Your task to perform on an android device: change timer sound Image 0: 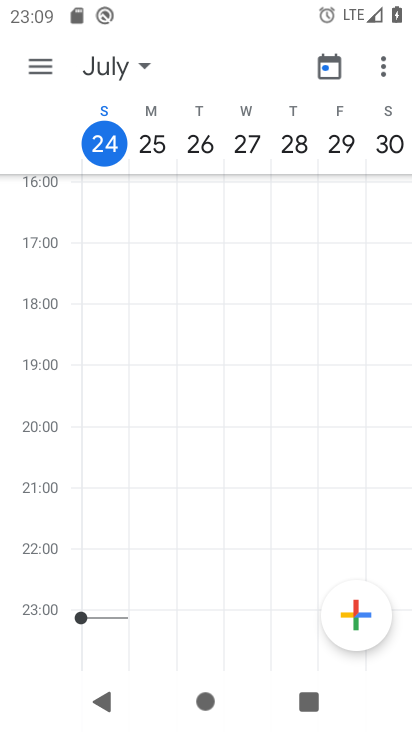
Step 0: press home button
Your task to perform on an android device: change timer sound Image 1: 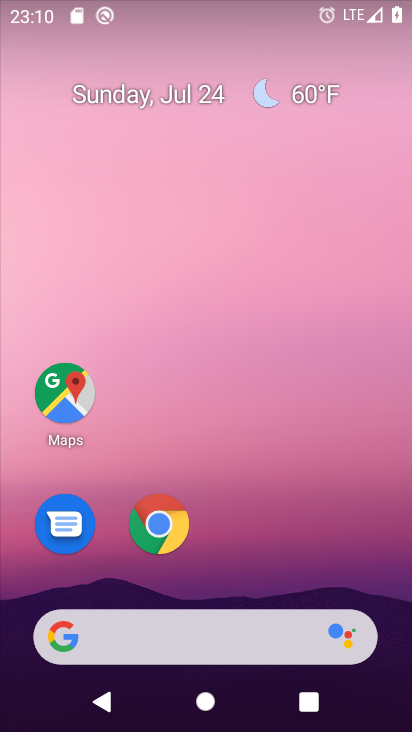
Step 1: drag from (266, 567) to (250, 1)
Your task to perform on an android device: change timer sound Image 2: 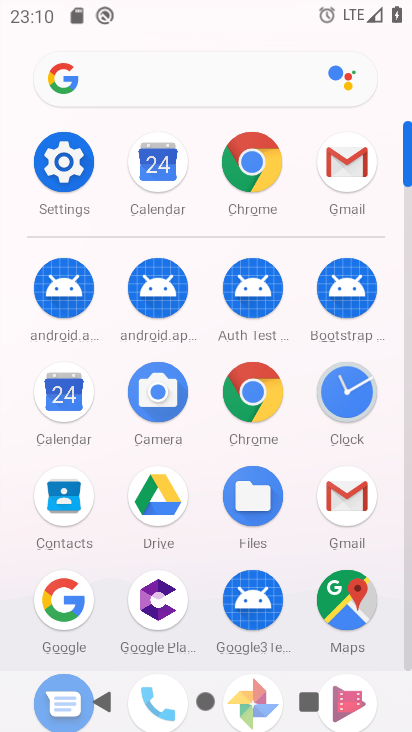
Step 2: click (67, 158)
Your task to perform on an android device: change timer sound Image 3: 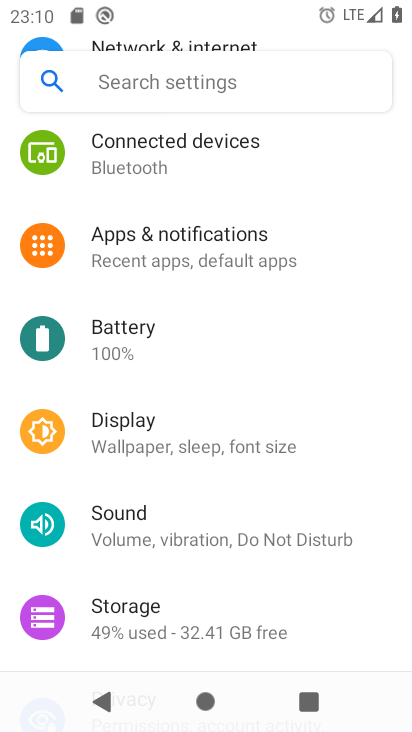
Step 3: press home button
Your task to perform on an android device: change timer sound Image 4: 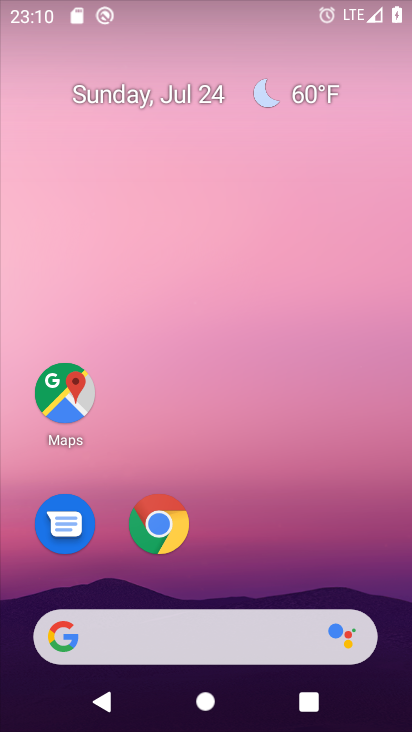
Step 4: drag from (275, 487) to (269, 0)
Your task to perform on an android device: change timer sound Image 5: 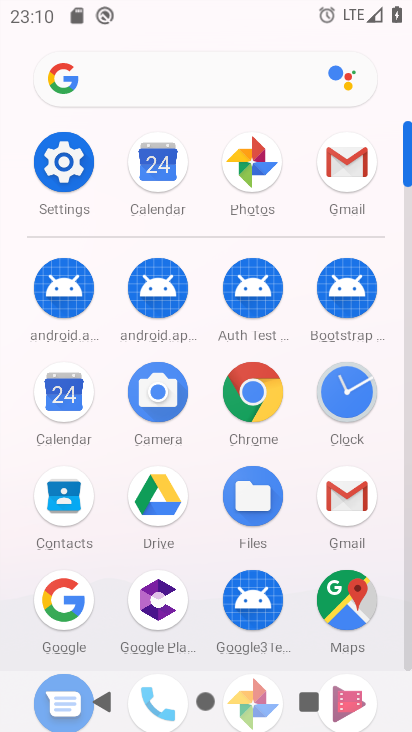
Step 5: click (340, 385)
Your task to perform on an android device: change timer sound Image 6: 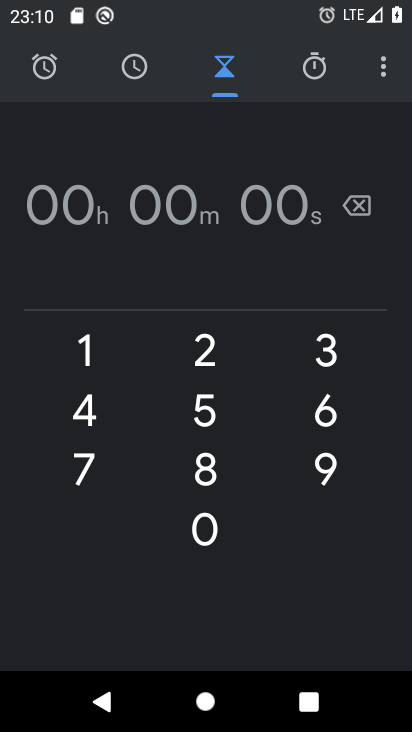
Step 6: click (380, 70)
Your task to perform on an android device: change timer sound Image 7: 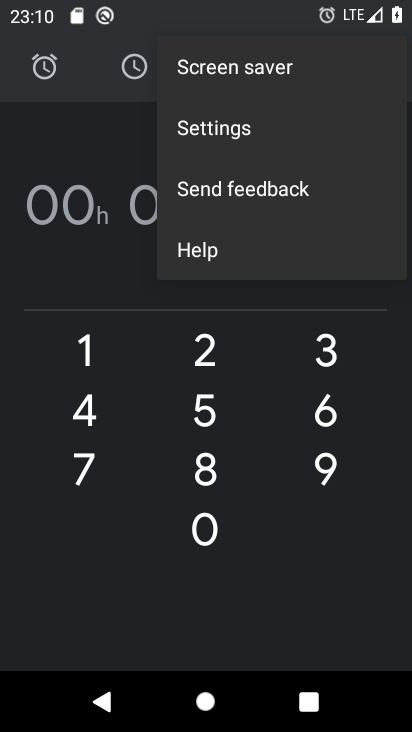
Step 7: click (246, 128)
Your task to perform on an android device: change timer sound Image 8: 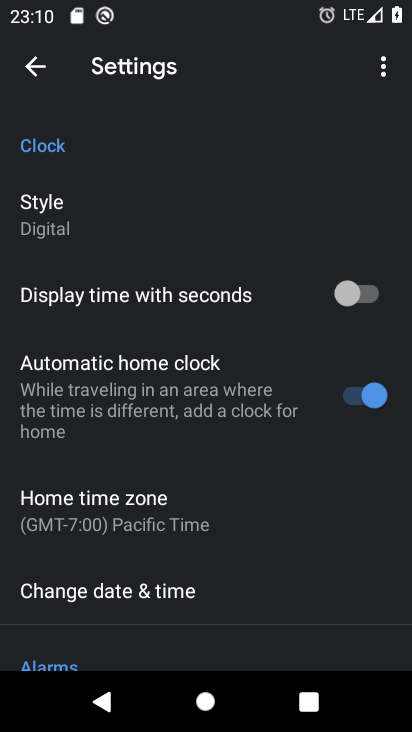
Step 8: drag from (205, 497) to (241, 46)
Your task to perform on an android device: change timer sound Image 9: 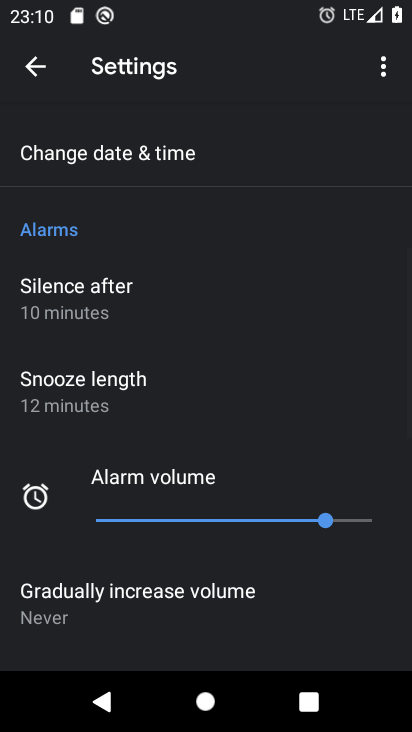
Step 9: drag from (210, 289) to (230, 2)
Your task to perform on an android device: change timer sound Image 10: 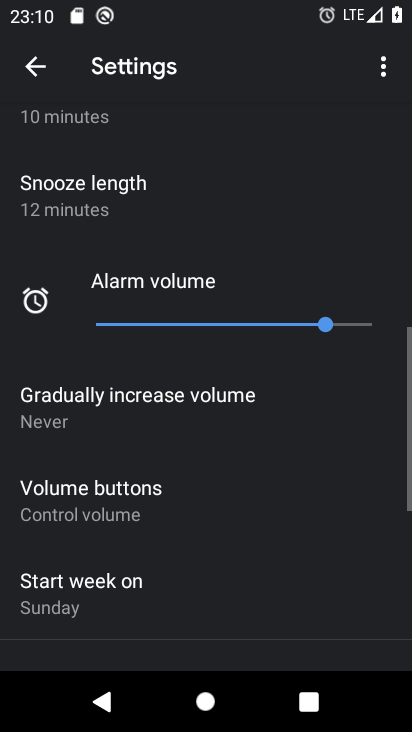
Step 10: drag from (234, 484) to (259, 0)
Your task to perform on an android device: change timer sound Image 11: 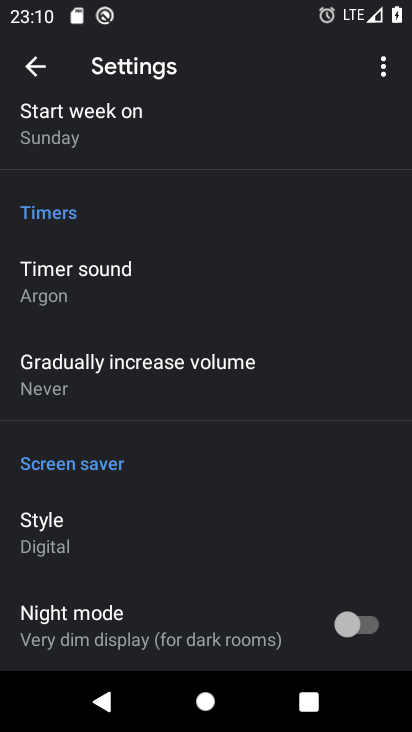
Step 11: click (90, 269)
Your task to perform on an android device: change timer sound Image 12: 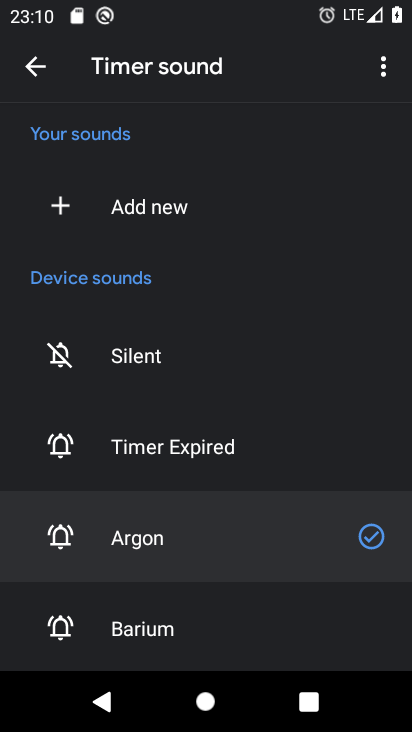
Step 12: click (153, 364)
Your task to perform on an android device: change timer sound Image 13: 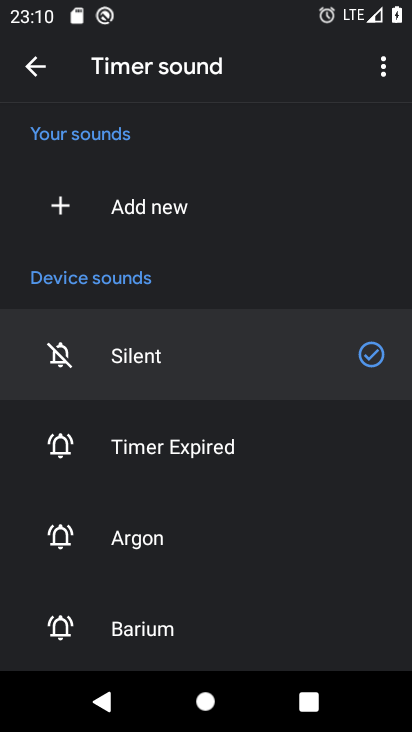
Step 13: drag from (228, 534) to (237, 165)
Your task to perform on an android device: change timer sound Image 14: 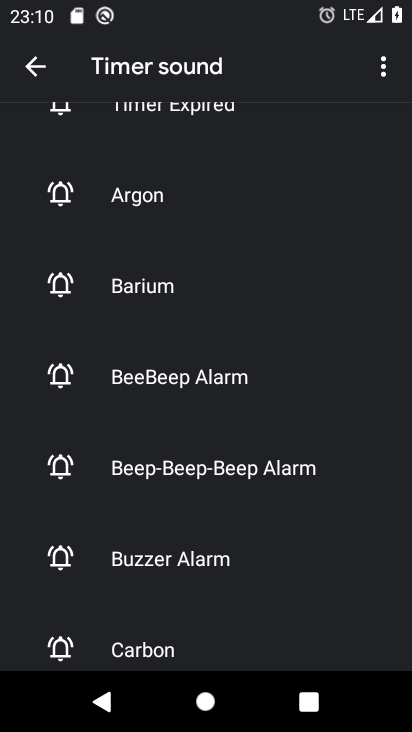
Step 14: click (160, 361)
Your task to perform on an android device: change timer sound Image 15: 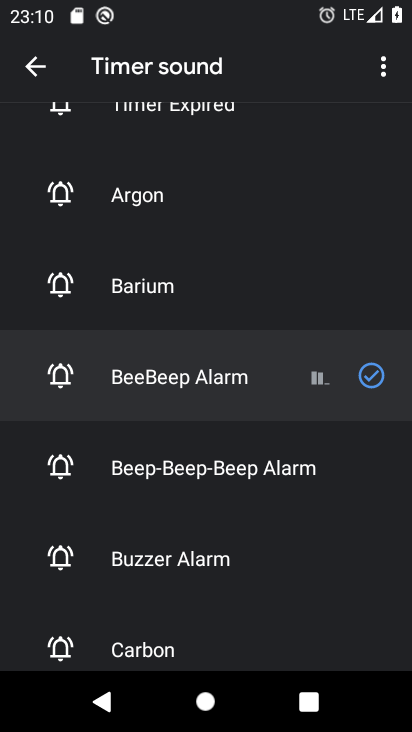
Step 15: task complete